Your task to perform on an android device: search for starred emails in the gmail app Image 0: 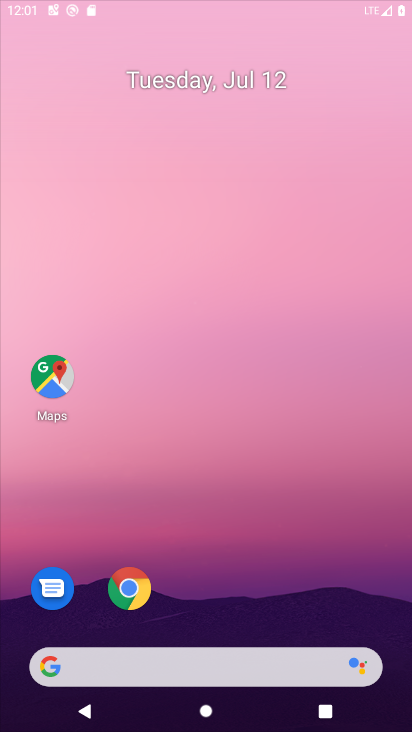
Step 0: press back button
Your task to perform on an android device: search for starred emails in the gmail app Image 1: 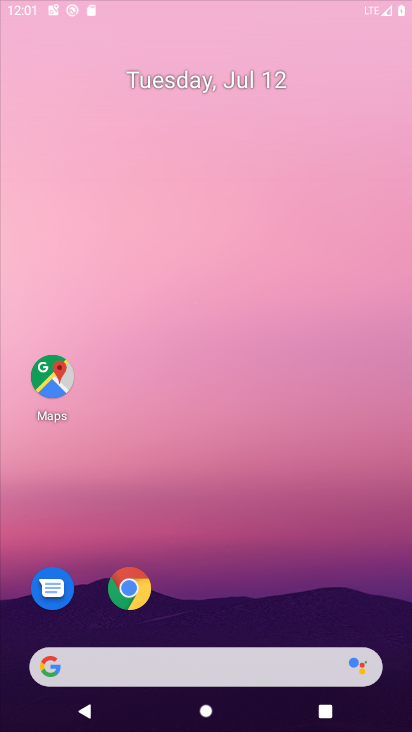
Step 1: click (90, 69)
Your task to perform on an android device: search for starred emails in the gmail app Image 2: 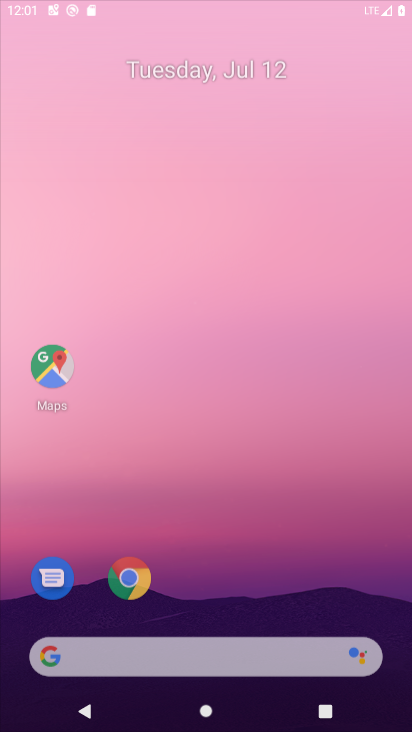
Step 2: drag from (256, 657) to (135, 79)
Your task to perform on an android device: search for starred emails in the gmail app Image 3: 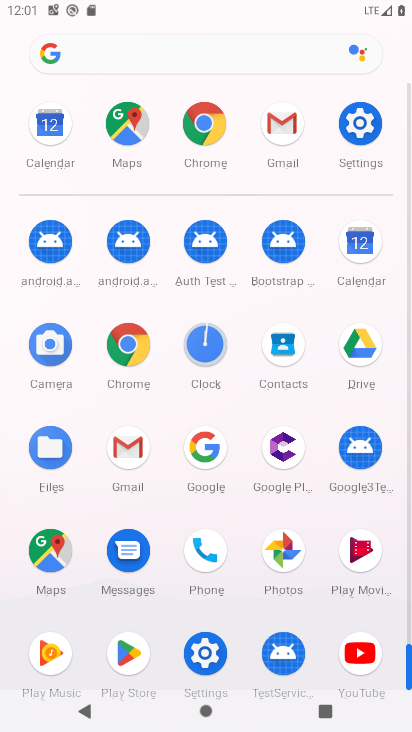
Step 3: press back button
Your task to perform on an android device: search for starred emails in the gmail app Image 4: 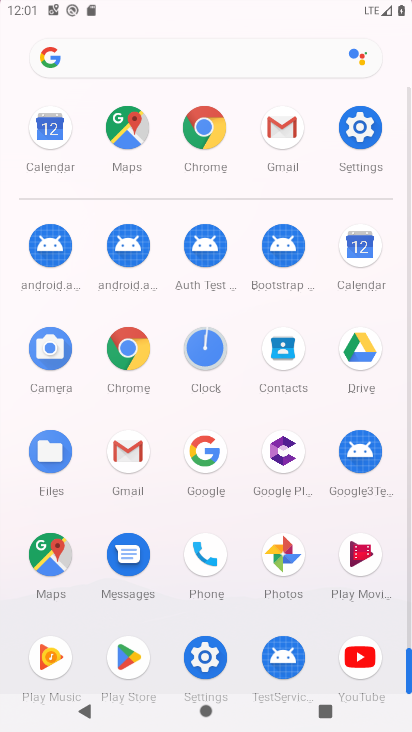
Step 4: press back button
Your task to perform on an android device: search for starred emails in the gmail app Image 5: 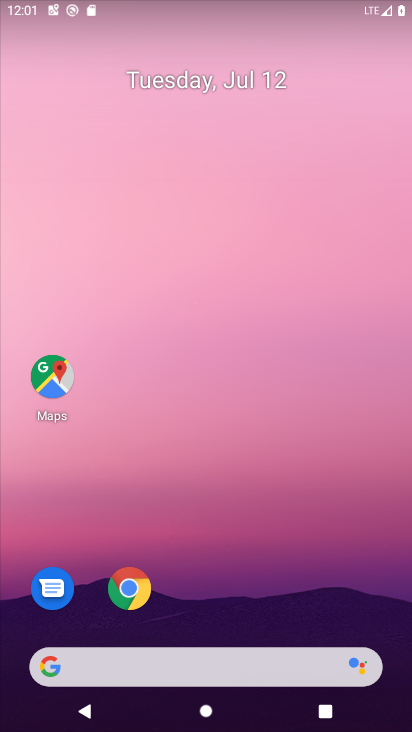
Step 5: drag from (205, 231) to (201, 185)
Your task to perform on an android device: search for starred emails in the gmail app Image 6: 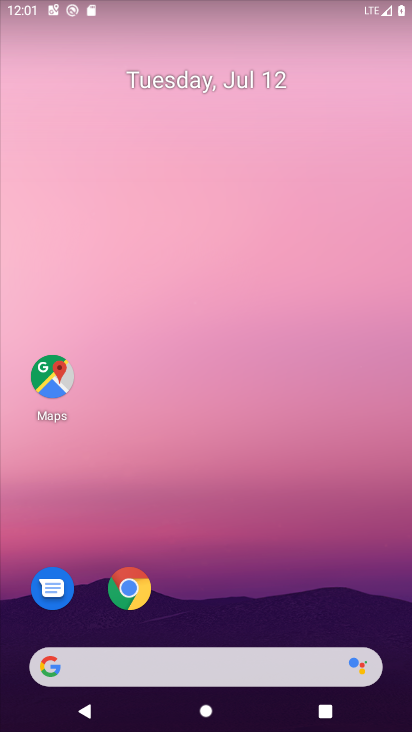
Step 6: drag from (288, 677) to (198, 45)
Your task to perform on an android device: search for starred emails in the gmail app Image 7: 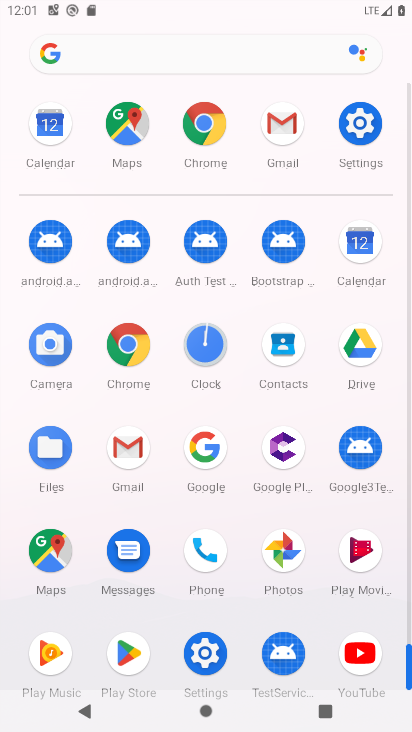
Step 7: click (129, 448)
Your task to perform on an android device: search for starred emails in the gmail app Image 8: 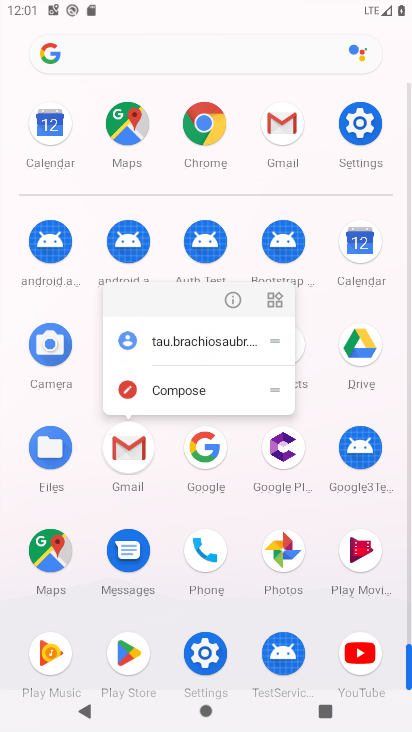
Step 8: click (124, 446)
Your task to perform on an android device: search for starred emails in the gmail app Image 9: 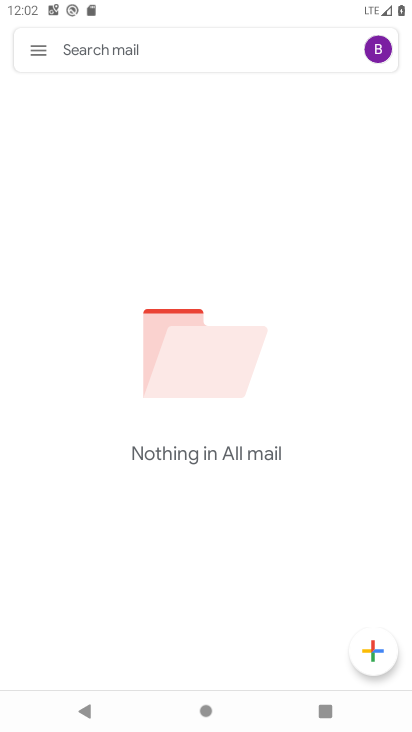
Step 9: click (35, 56)
Your task to perform on an android device: search for starred emails in the gmail app Image 10: 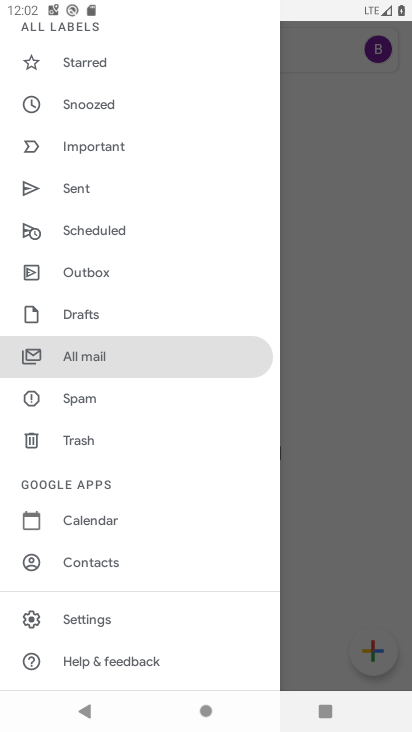
Step 10: click (88, 60)
Your task to perform on an android device: search for starred emails in the gmail app Image 11: 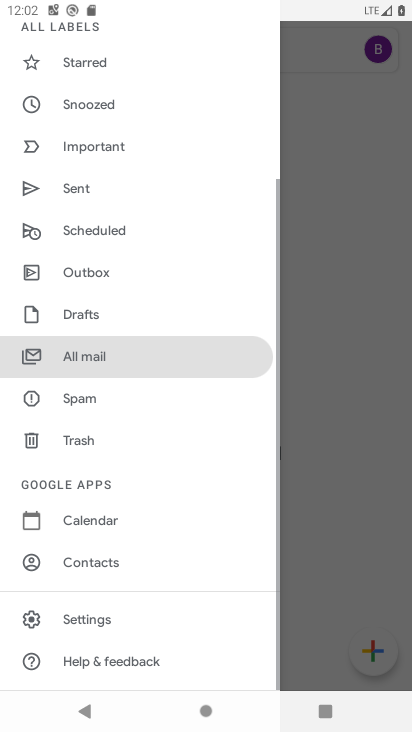
Step 11: click (90, 58)
Your task to perform on an android device: search for starred emails in the gmail app Image 12: 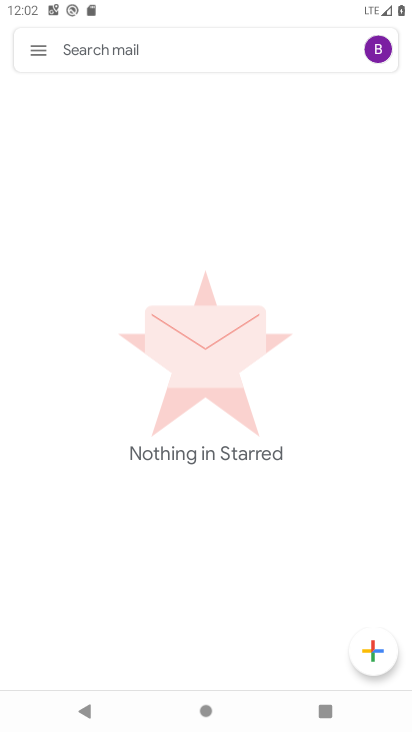
Step 12: task complete